Your task to perform on an android device: change the clock style Image 0: 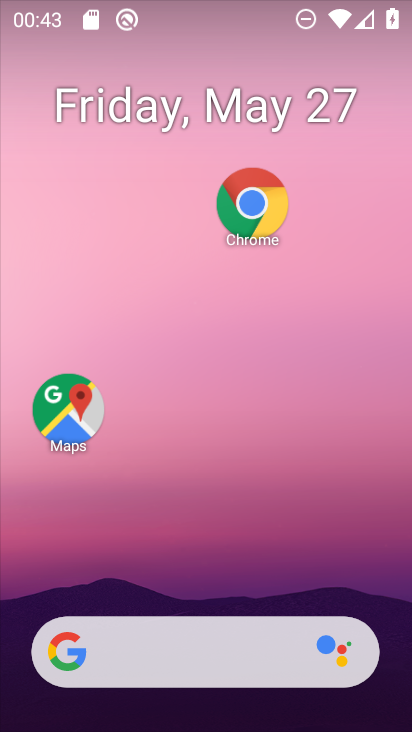
Step 0: drag from (211, 543) to (285, 1)
Your task to perform on an android device: change the clock style Image 1: 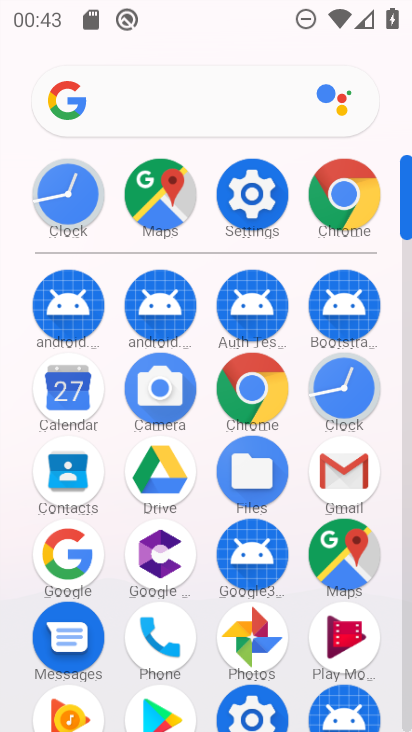
Step 1: click (325, 383)
Your task to perform on an android device: change the clock style Image 2: 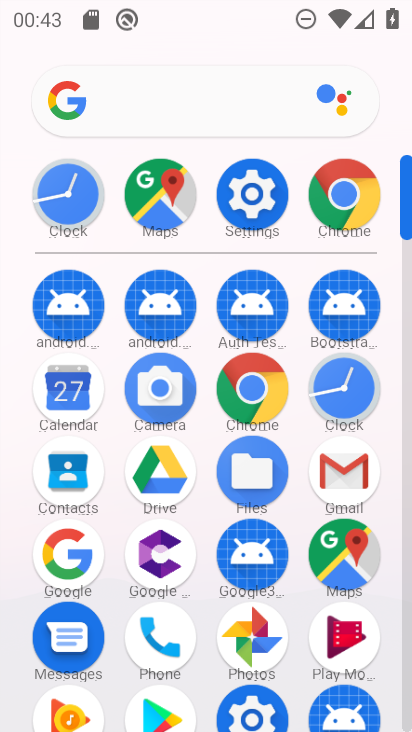
Step 2: click (325, 383)
Your task to perform on an android device: change the clock style Image 3: 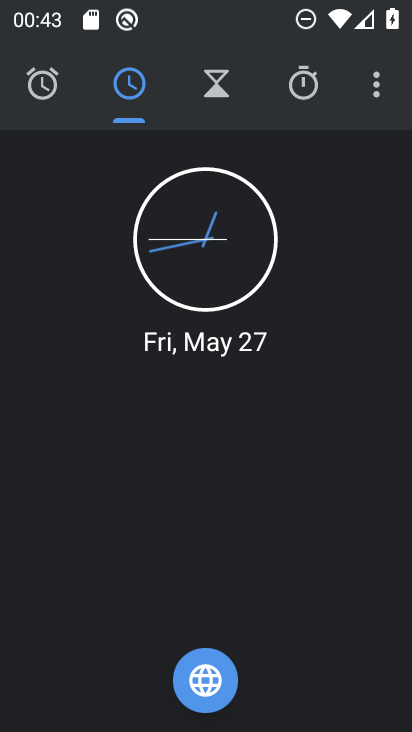
Step 3: press home button
Your task to perform on an android device: change the clock style Image 4: 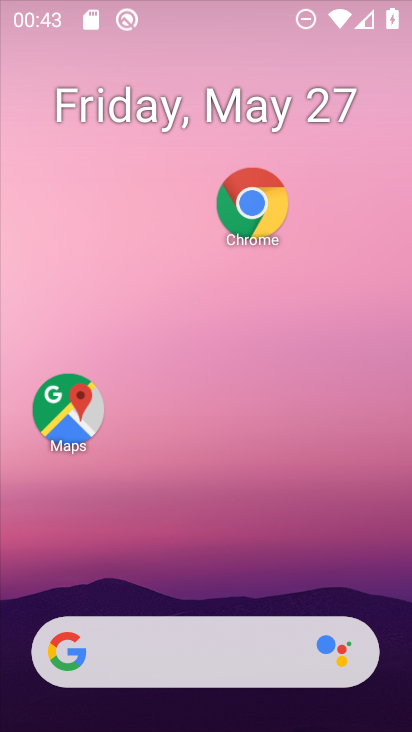
Step 4: drag from (202, 622) to (189, 111)
Your task to perform on an android device: change the clock style Image 5: 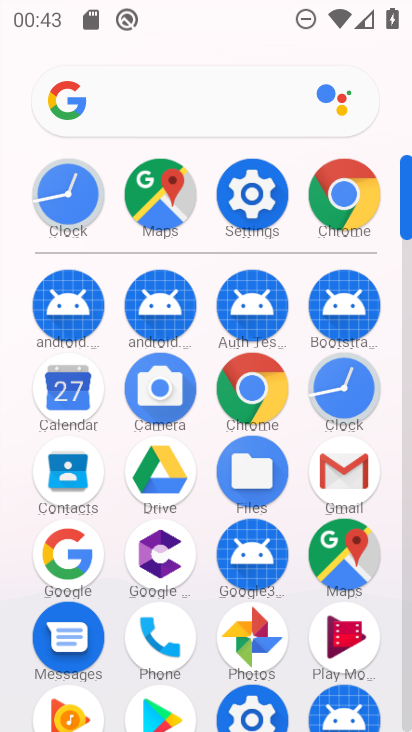
Step 5: click (321, 370)
Your task to perform on an android device: change the clock style Image 6: 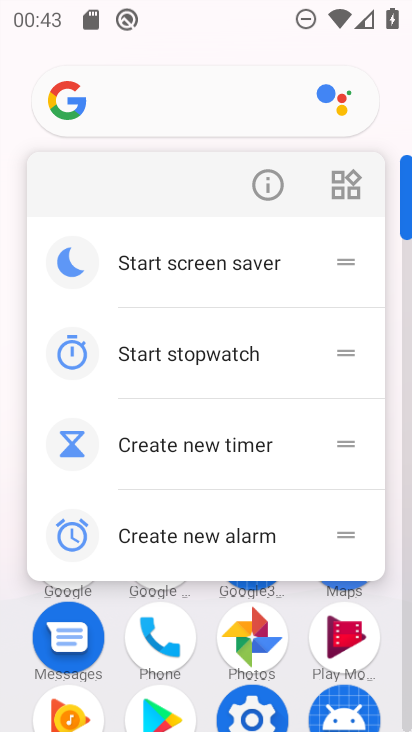
Step 6: click (258, 181)
Your task to perform on an android device: change the clock style Image 7: 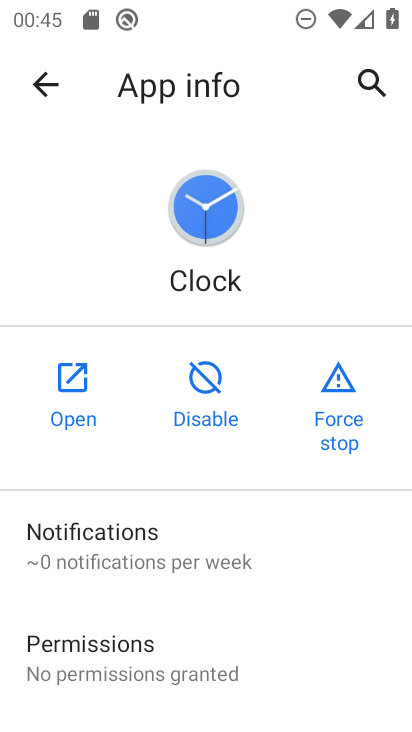
Step 7: click (42, 395)
Your task to perform on an android device: change the clock style Image 8: 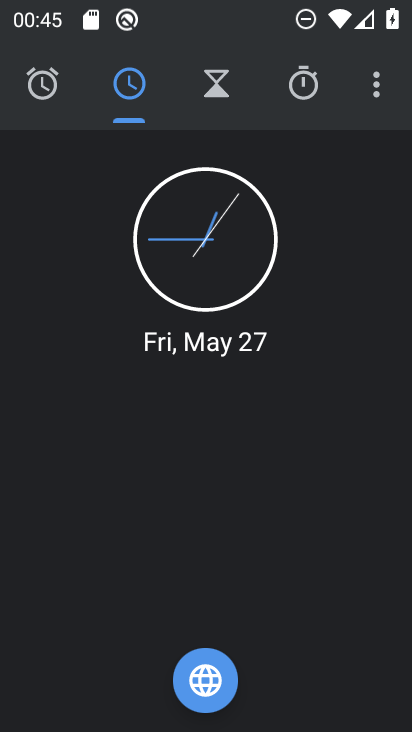
Step 8: click (376, 99)
Your task to perform on an android device: change the clock style Image 9: 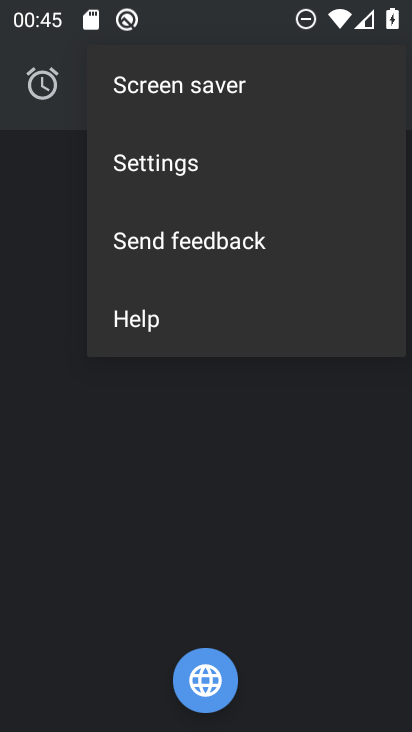
Step 9: click (262, 184)
Your task to perform on an android device: change the clock style Image 10: 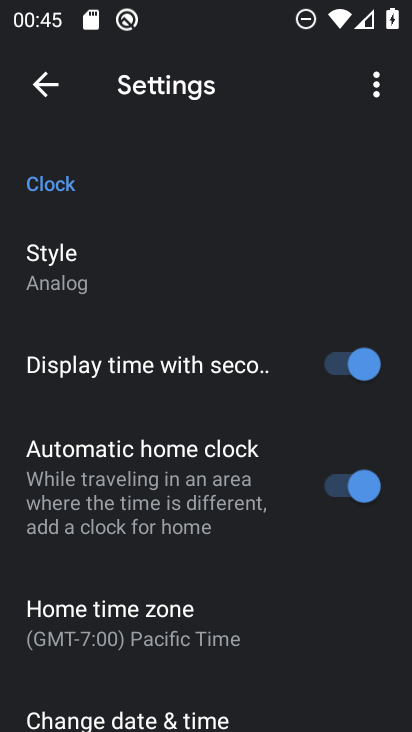
Step 10: click (64, 258)
Your task to perform on an android device: change the clock style Image 11: 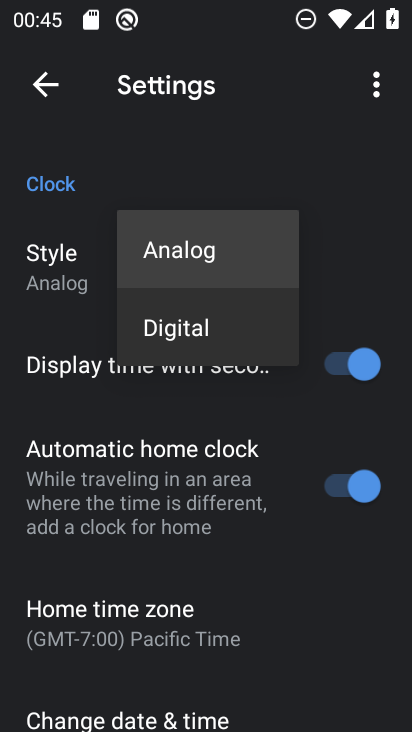
Step 11: click (167, 318)
Your task to perform on an android device: change the clock style Image 12: 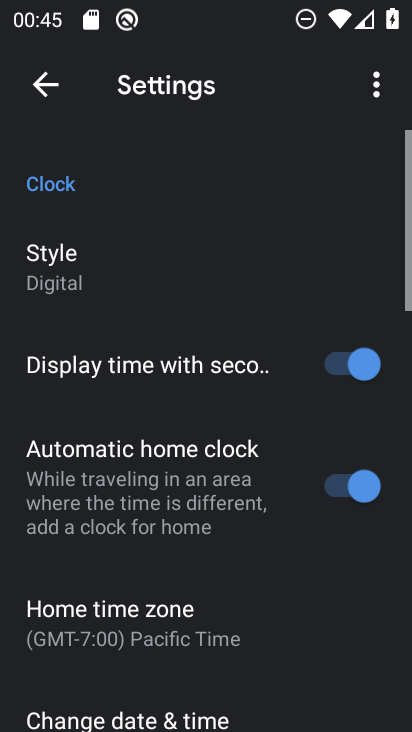
Step 12: task complete